Your task to perform on an android device: set the timer Image 0: 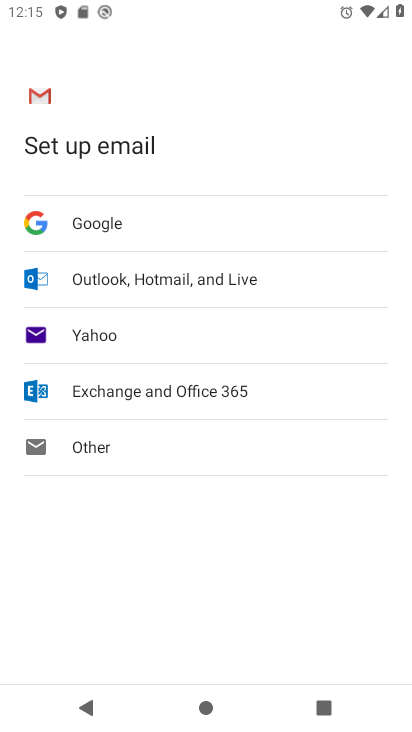
Step 0: press home button
Your task to perform on an android device: set the timer Image 1: 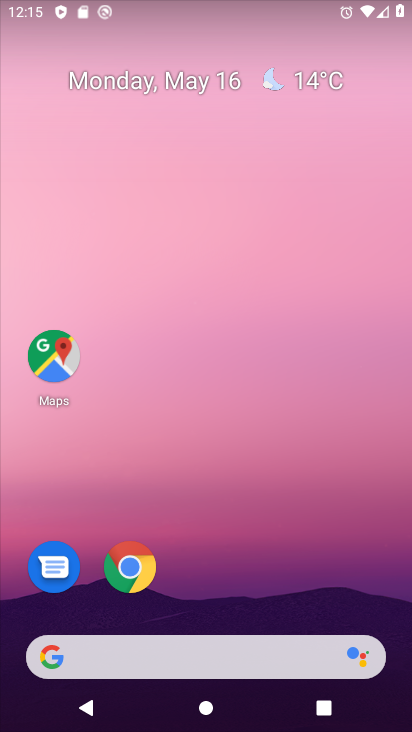
Step 1: drag from (305, 571) to (341, 40)
Your task to perform on an android device: set the timer Image 2: 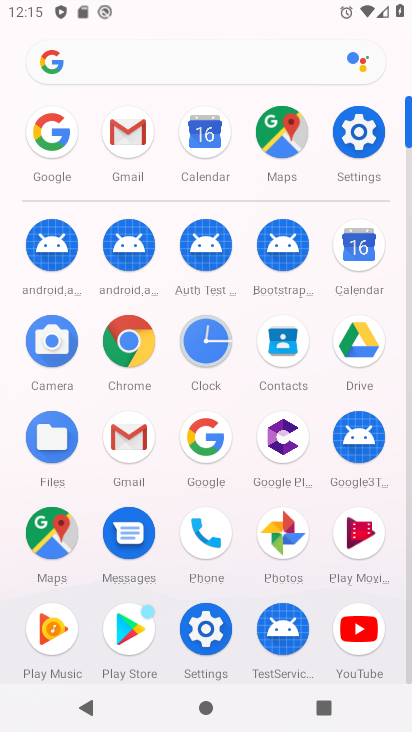
Step 2: click (201, 349)
Your task to perform on an android device: set the timer Image 3: 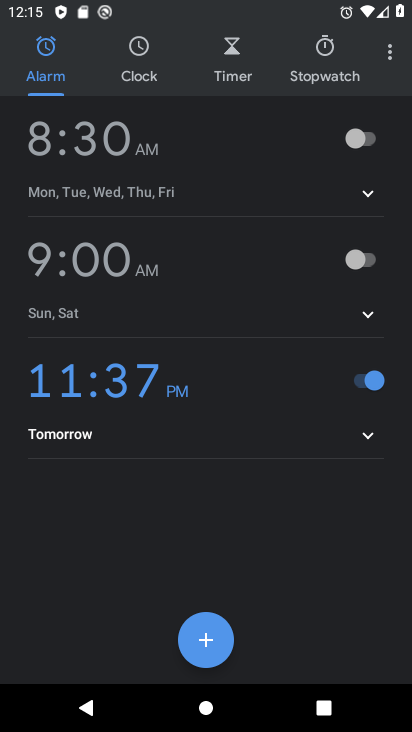
Step 3: click (249, 64)
Your task to perform on an android device: set the timer Image 4: 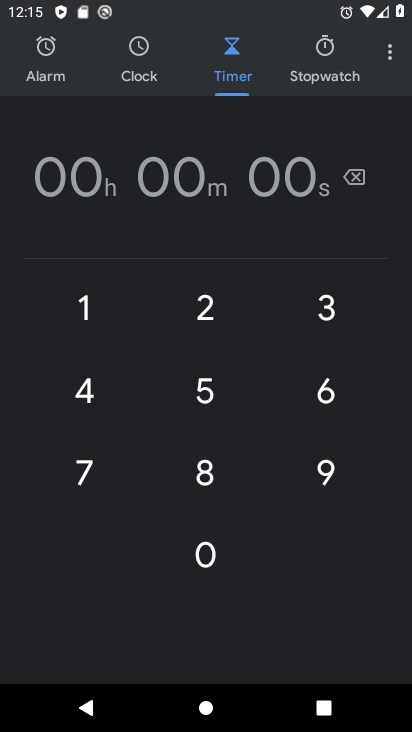
Step 4: click (110, 471)
Your task to perform on an android device: set the timer Image 5: 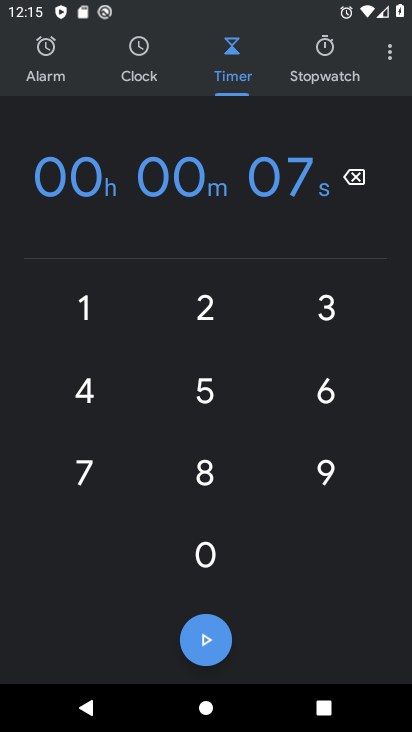
Step 5: click (257, 501)
Your task to perform on an android device: set the timer Image 6: 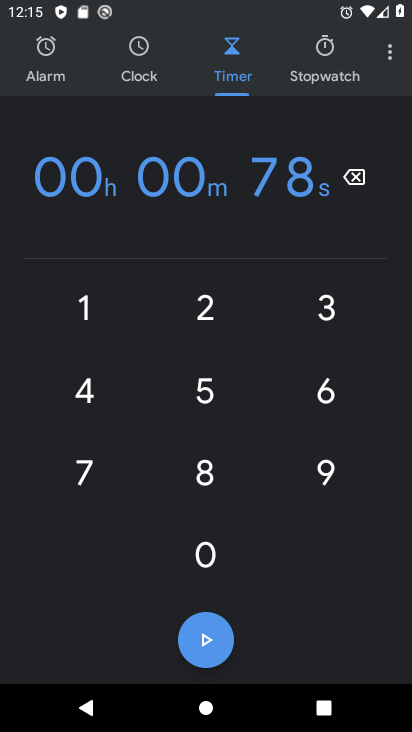
Step 6: click (176, 477)
Your task to perform on an android device: set the timer Image 7: 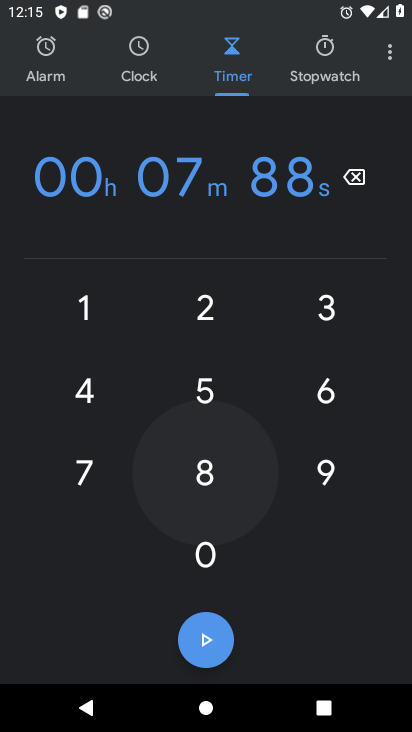
Step 7: click (133, 464)
Your task to perform on an android device: set the timer Image 8: 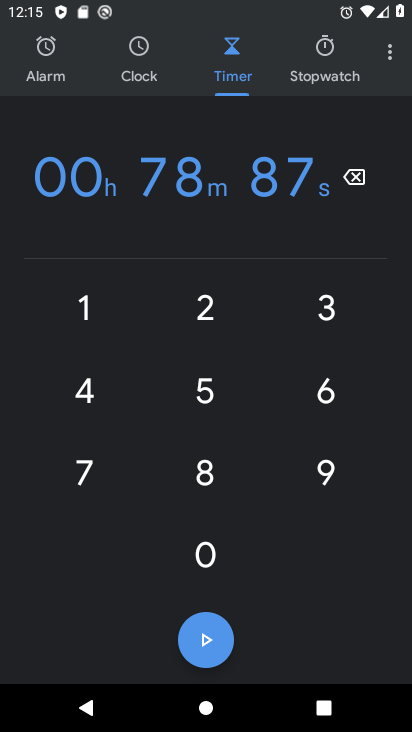
Step 8: click (98, 476)
Your task to perform on an android device: set the timer Image 9: 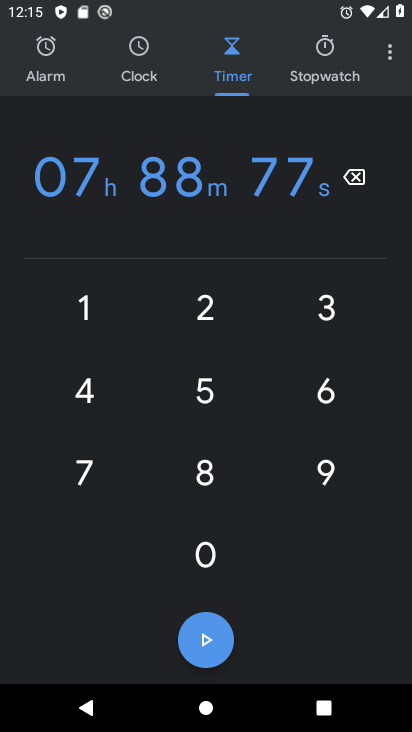
Step 9: click (219, 475)
Your task to perform on an android device: set the timer Image 10: 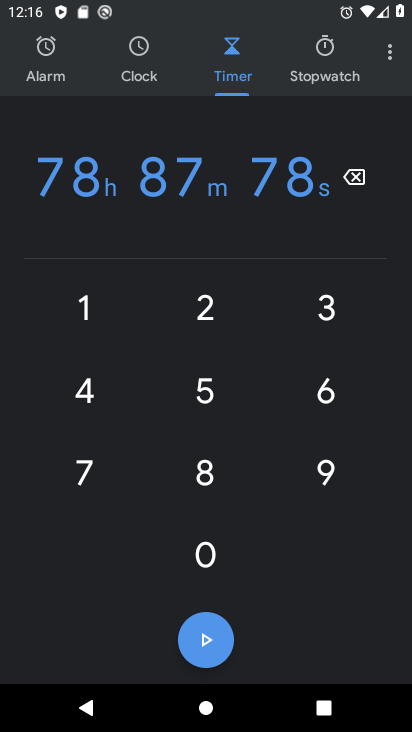
Step 10: click (198, 643)
Your task to perform on an android device: set the timer Image 11: 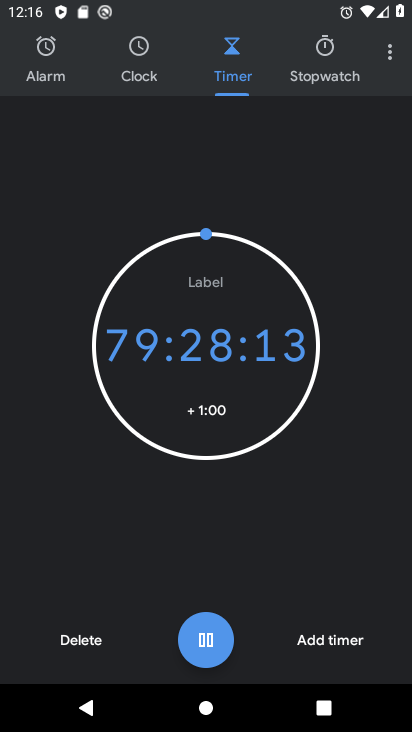
Step 11: task complete